Your task to perform on an android device: Show the shopping cart on newegg. Add razer blade to the cart on newegg, then select checkout. Image 0: 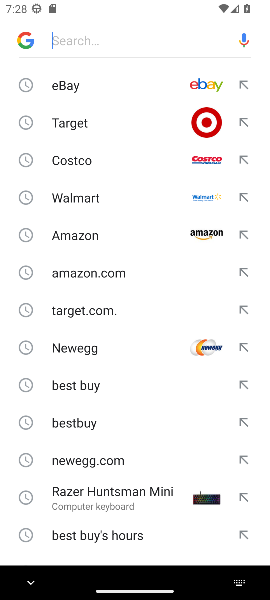
Step 0: click (69, 461)
Your task to perform on an android device: Show the shopping cart on newegg. Add razer blade to the cart on newegg, then select checkout. Image 1: 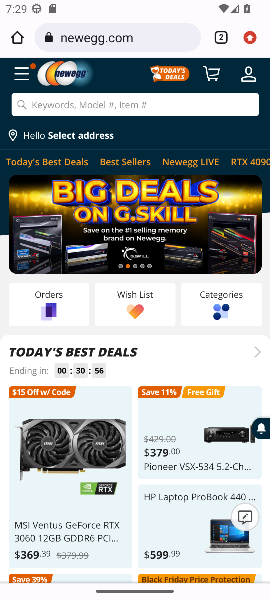
Step 1: click (213, 77)
Your task to perform on an android device: Show the shopping cart on newegg. Add razer blade to the cart on newegg, then select checkout. Image 2: 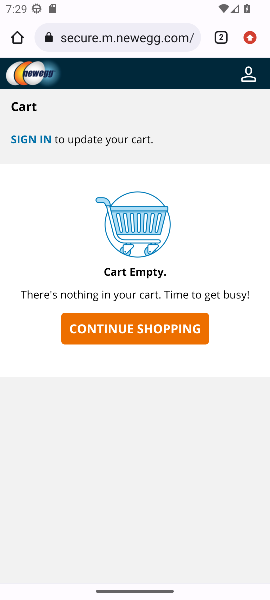
Step 2: click (131, 334)
Your task to perform on an android device: Show the shopping cart on newegg. Add razer blade to the cart on newegg, then select checkout. Image 3: 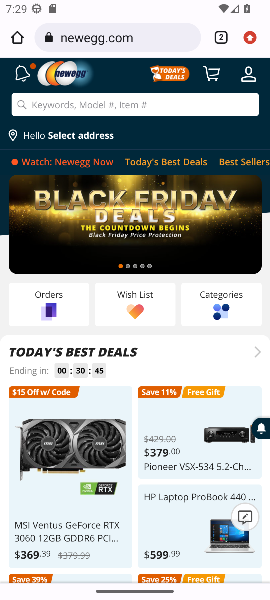
Step 3: click (68, 101)
Your task to perform on an android device: Show the shopping cart on newegg. Add razer blade to the cart on newegg, then select checkout. Image 4: 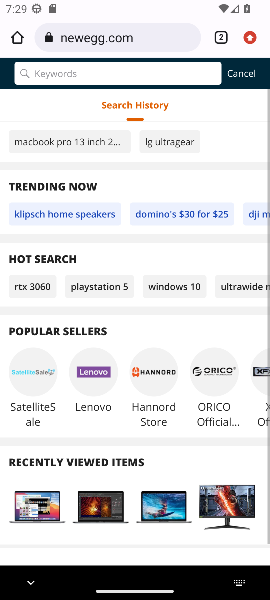
Step 4: type "razer blade"
Your task to perform on an android device: Show the shopping cart on newegg. Add razer blade to the cart on newegg, then select checkout. Image 5: 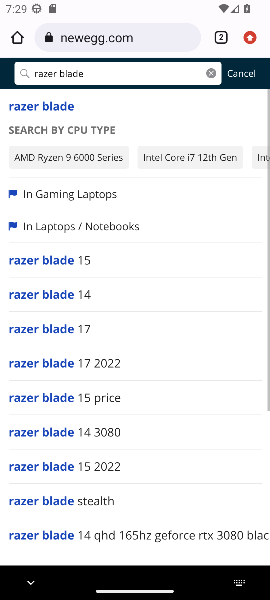
Step 5: click (48, 110)
Your task to perform on an android device: Show the shopping cart on newegg. Add razer blade to the cart on newegg, then select checkout. Image 6: 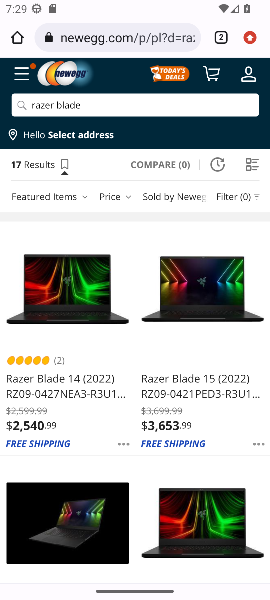
Step 6: click (52, 320)
Your task to perform on an android device: Show the shopping cart on newegg. Add razer blade to the cart on newegg, then select checkout. Image 7: 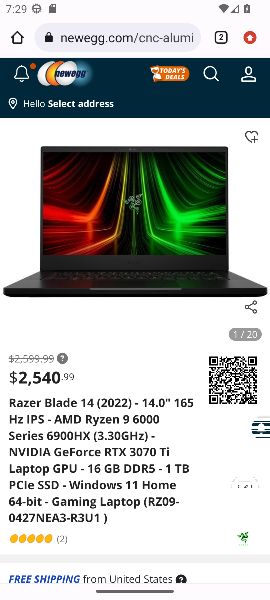
Step 7: click (127, 574)
Your task to perform on an android device: Show the shopping cart on newegg. Add razer blade to the cart on newegg, then select checkout. Image 8: 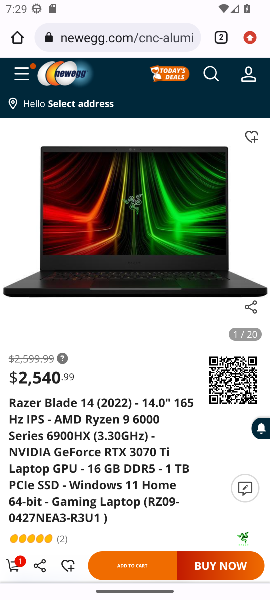
Step 8: click (128, 571)
Your task to perform on an android device: Show the shopping cart on newegg. Add razer blade to the cart on newegg, then select checkout. Image 9: 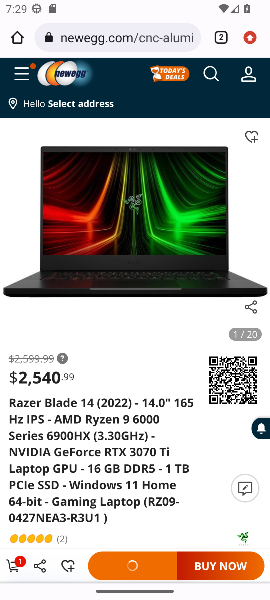
Step 9: click (18, 569)
Your task to perform on an android device: Show the shopping cart on newegg. Add razer blade to the cart on newegg, then select checkout. Image 10: 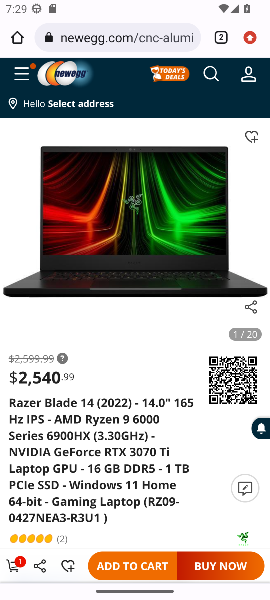
Step 10: click (18, 569)
Your task to perform on an android device: Show the shopping cart on newegg. Add razer blade to the cart on newegg, then select checkout. Image 11: 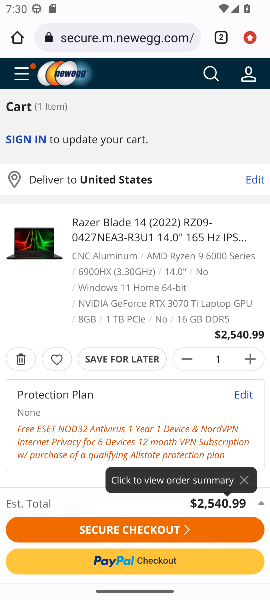
Step 11: click (113, 530)
Your task to perform on an android device: Show the shopping cart on newegg. Add razer blade to the cart on newegg, then select checkout. Image 12: 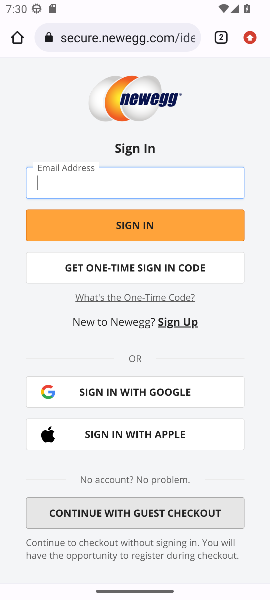
Step 12: task complete